Your task to perform on an android device: Go to ESPN.com Image 0: 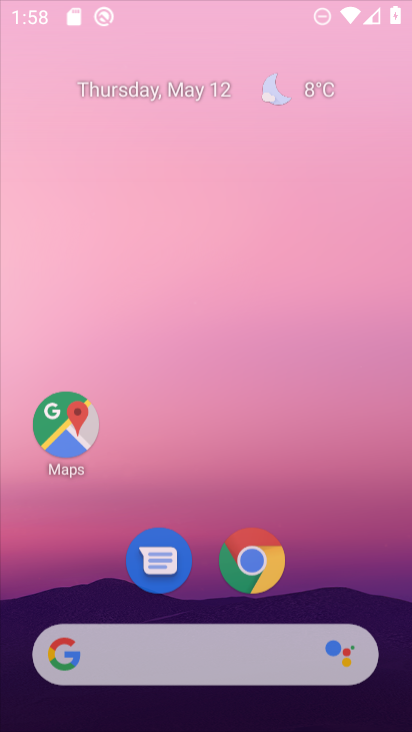
Step 0: click (182, 107)
Your task to perform on an android device: Go to ESPN.com Image 1: 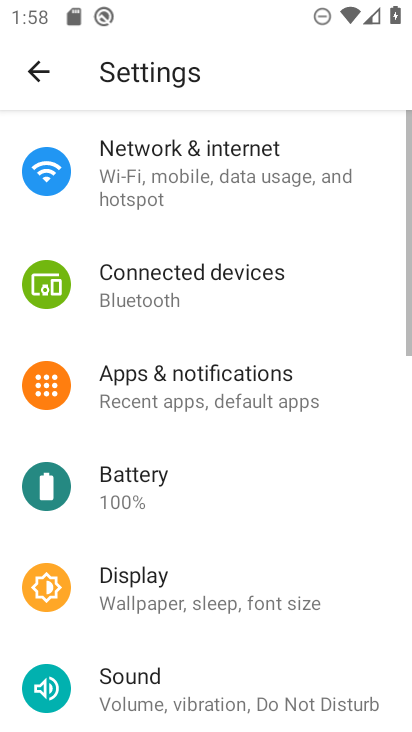
Step 1: click (38, 71)
Your task to perform on an android device: Go to ESPN.com Image 2: 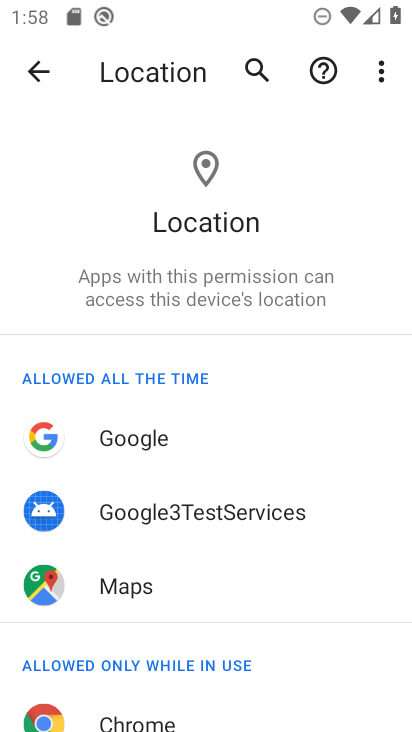
Step 2: press back button
Your task to perform on an android device: Go to ESPN.com Image 3: 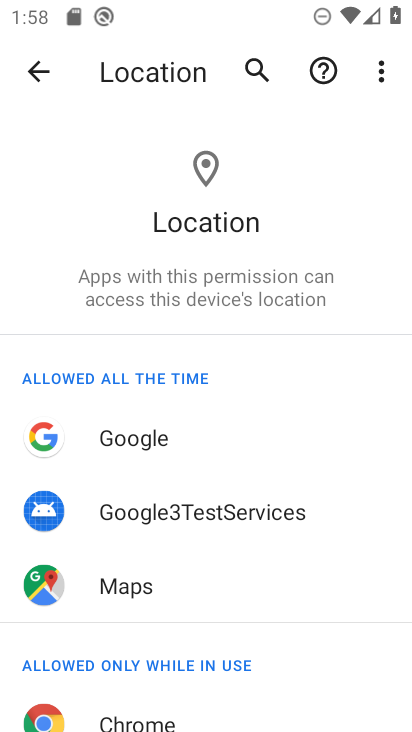
Step 3: press back button
Your task to perform on an android device: Go to ESPN.com Image 4: 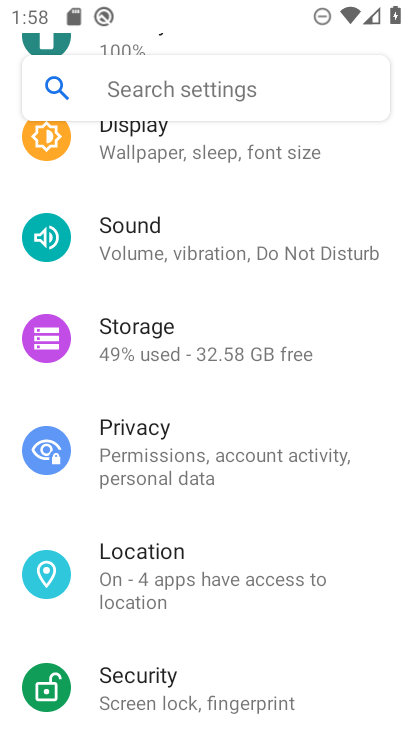
Step 4: press home button
Your task to perform on an android device: Go to ESPN.com Image 5: 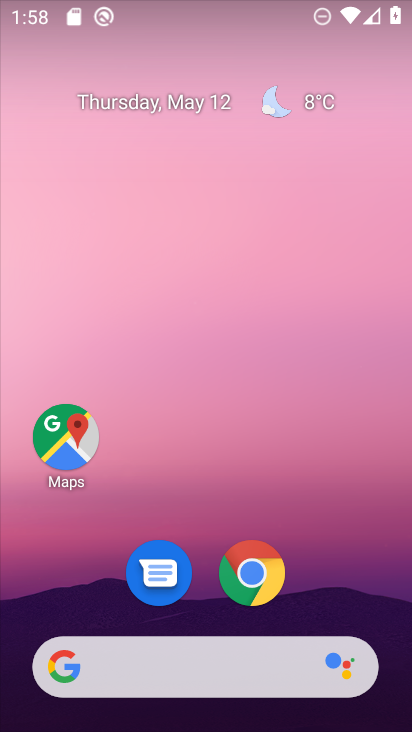
Step 5: drag from (355, 608) to (227, 41)
Your task to perform on an android device: Go to ESPN.com Image 6: 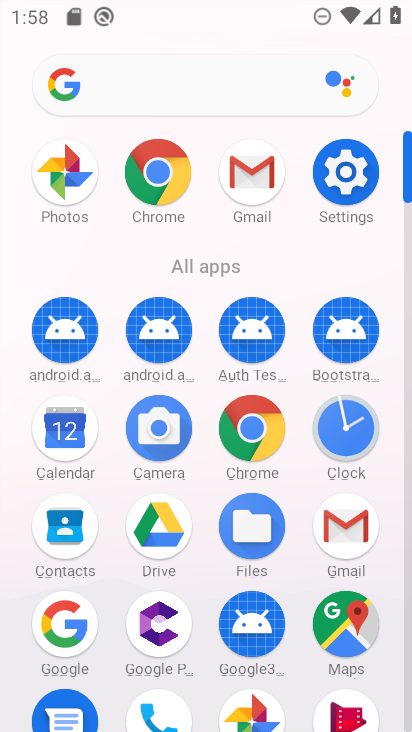
Step 6: drag from (284, 519) to (284, 104)
Your task to perform on an android device: Go to ESPN.com Image 7: 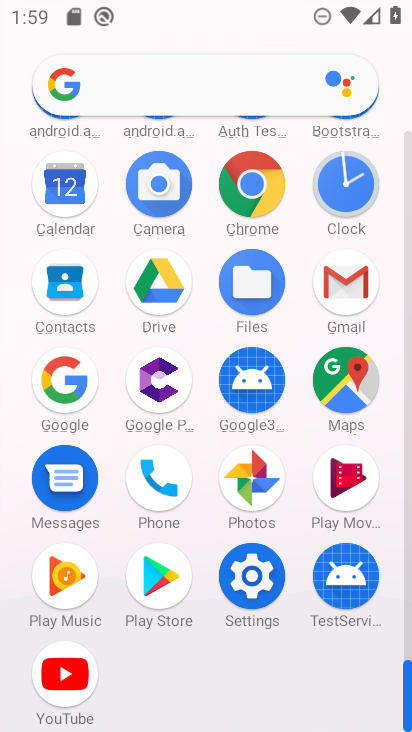
Step 7: drag from (284, 495) to (286, 268)
Your task to perform on an android device: Go to ESPN.com Image 8: 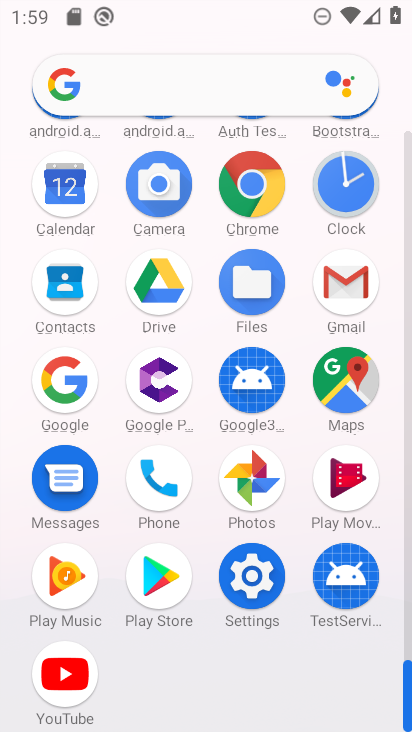
Step 8: click (248, 173)
Your task to perform on an android device: Go to ESPN.com Image 9: 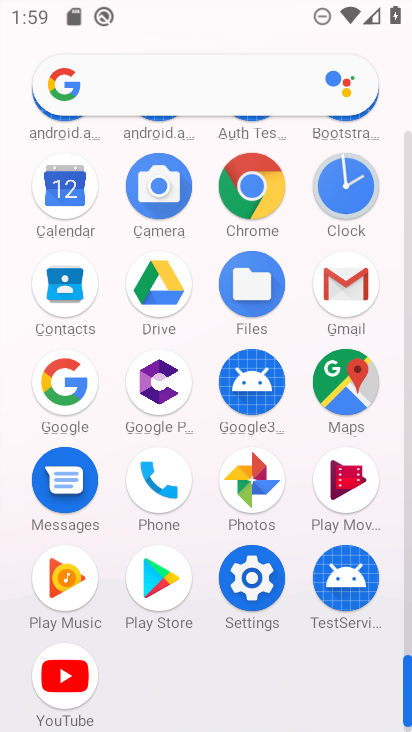
Step 9: click (250, 190)
Your task to perform on an android device: Go to ESPN.com Image 10: 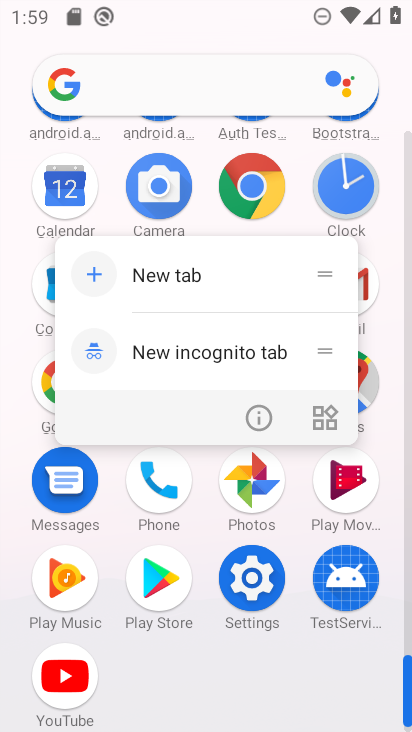
Step 10: click (252, 191)
Your task to perform on an android device: Go to ESPN.com Image 11: 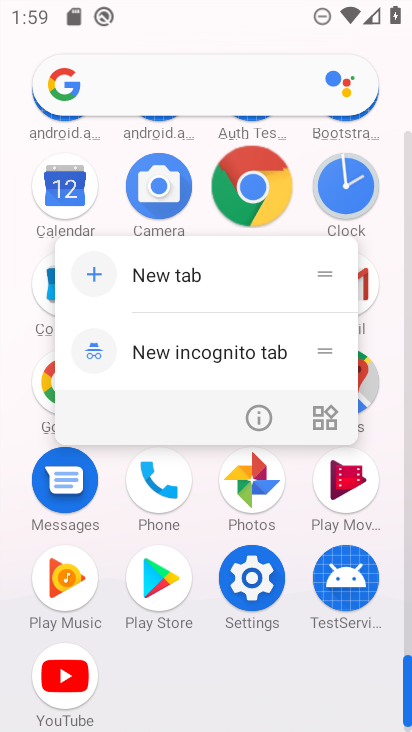
Step 11: click (257, 188)
Your task to perform on an android device: Go to ESPN.com Image 12: 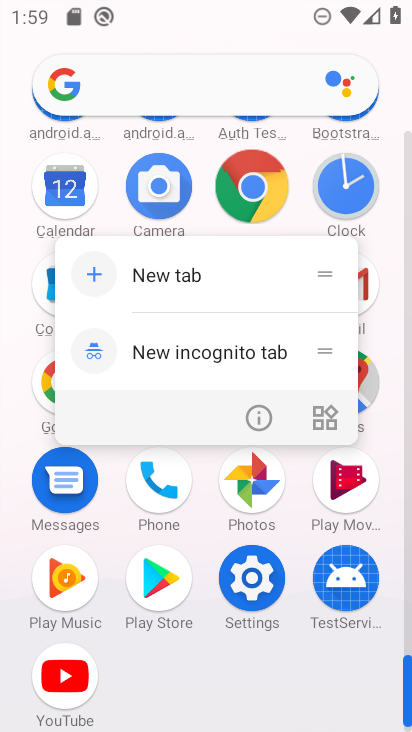
Step 12: click (259, 188)
Your task to perform on an android device: Go to ESPN.com Image 13: 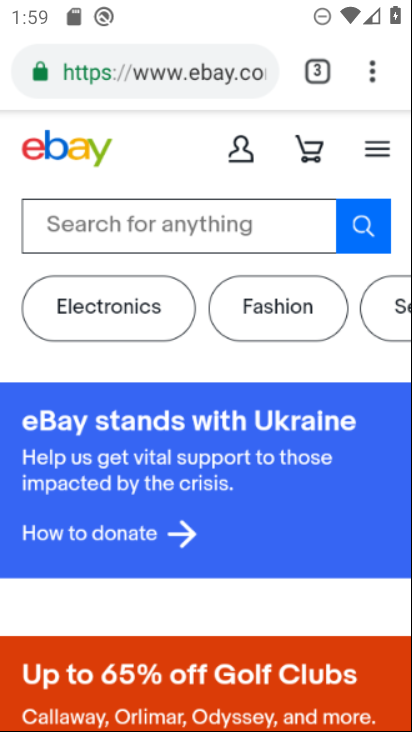
Step 13: click (269, 188)
Your task to perform on an android device: Go to ESPN.com Image 14: 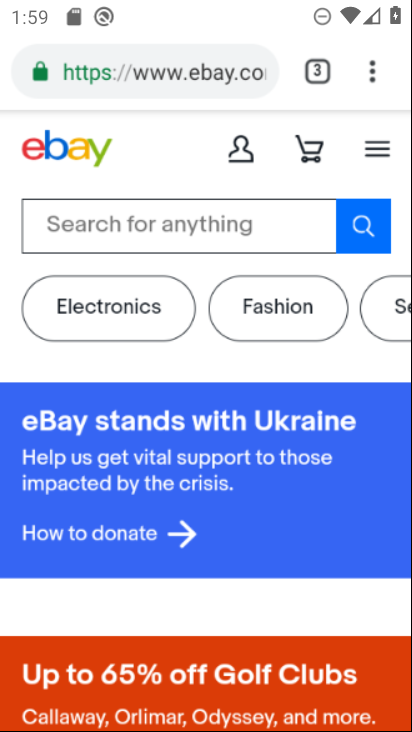
Step 14: click (271, 193)
Your task to perform on an android device: Go to ESPN.com Image 15: 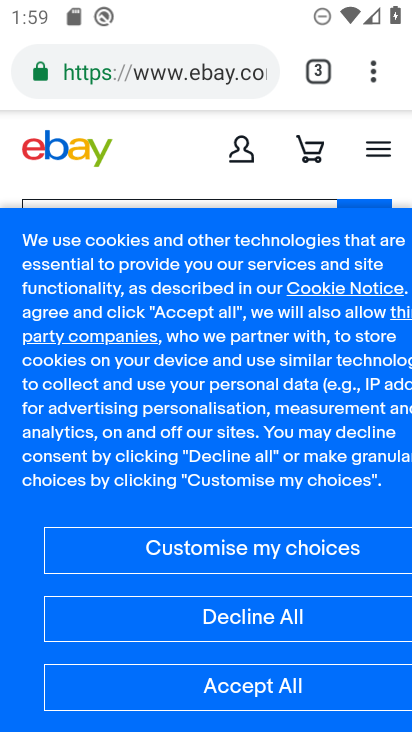
Step 15: drag from (362, 60) to (158, 365)
Your task to perform on an android device: Go to ESPN.com Image 16: 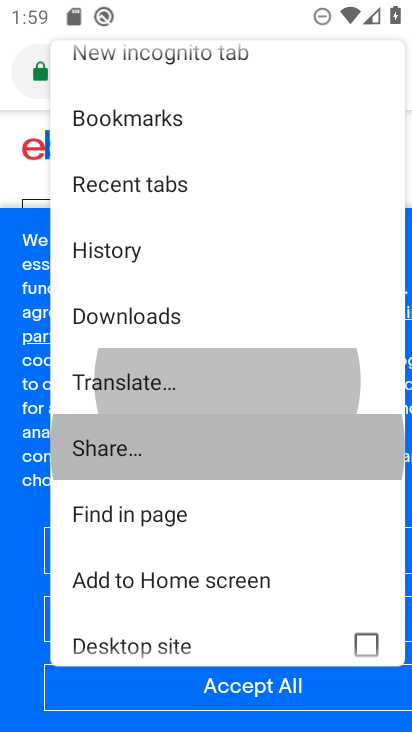
Step 16: drag from (179, 432) to (116, 419)
Your task to perform on an android device: Go to ESPN.com Image 17: 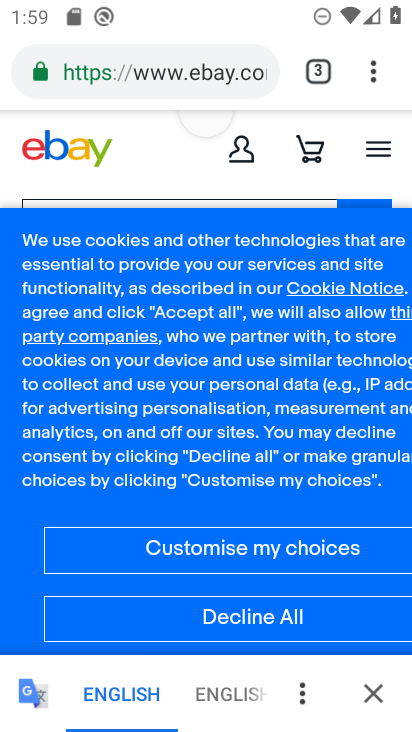
Step 17: drag from (125, 184) to (168, 414)
Your task to perform on an android device: Go to ESPN.com Image 18: 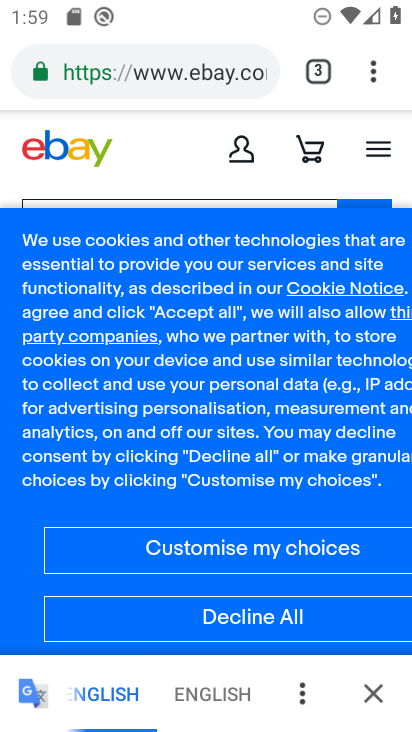
Step 18: click (374, 70)
Your task to perform on an android device: Go to ESPN.com Image 19: 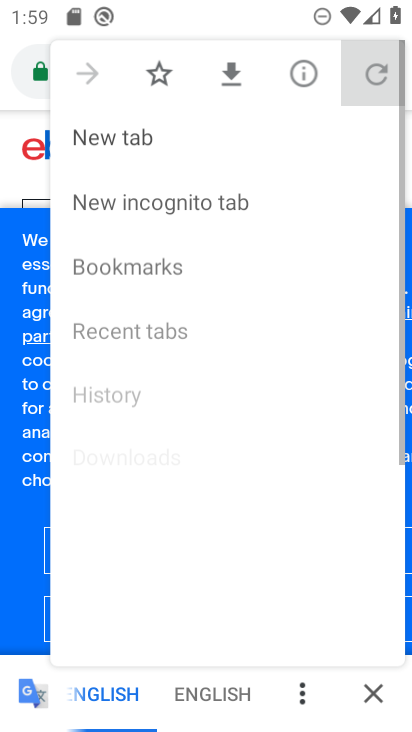
Step 19: click (372, 70)
Your task to perform on an android device: Go to ESPN.com Image 20: 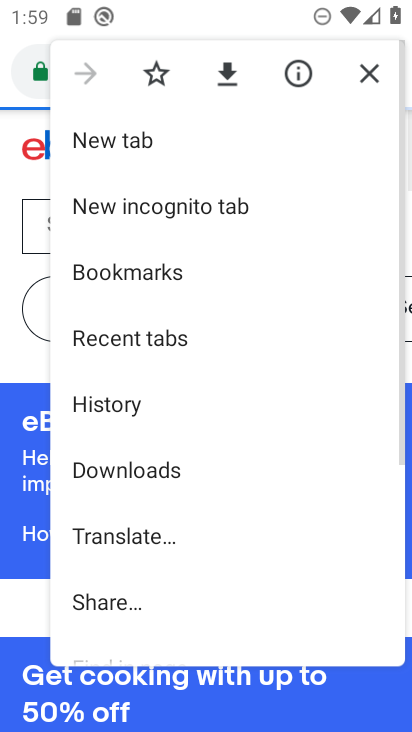
Step 20: click (102, 139)
Your task to perform on an android device: Go to ESPN.com Image 21: 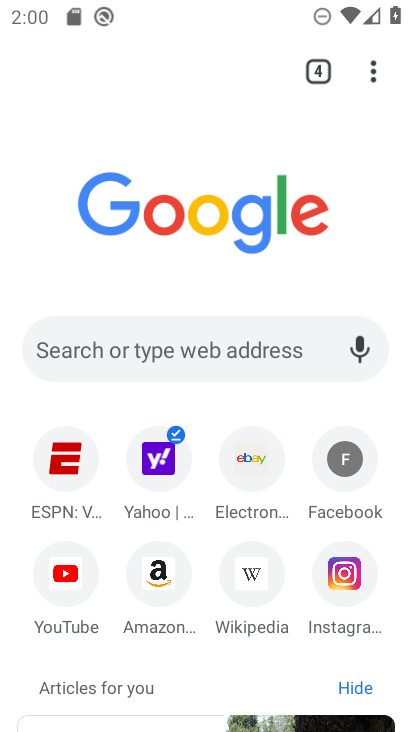
Step 21: click (75, 463)
Your task to perform on an android device: Go to ESPN.com Image 22: 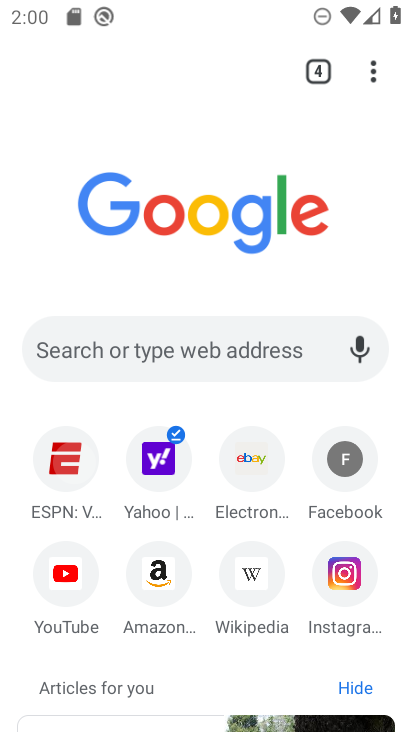
Step 22: drag from (73, 461) to (45, 436)
Your task to perform on an android device: Go to ESPN.com Image 23: 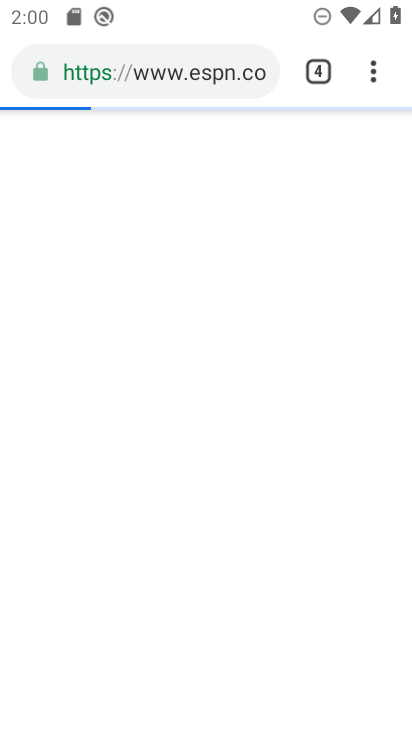
Step 23: click (58, 446)
Your task to perform on an android device: Go to ESPN.com Image 24: 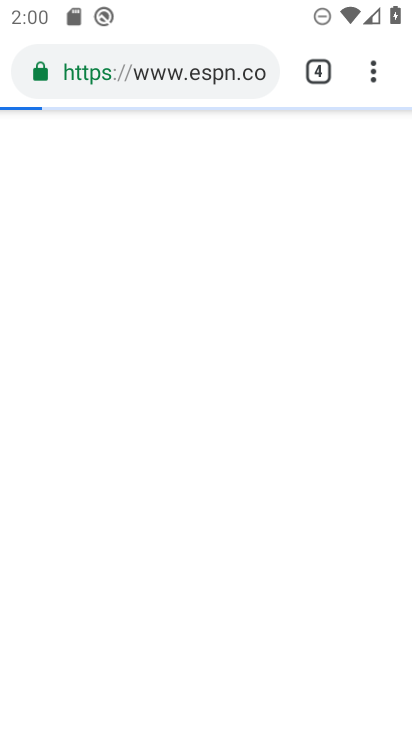
Step 24: click (68, 471)
Your task to perform on an android device: Go to ESPN.com Image 25: 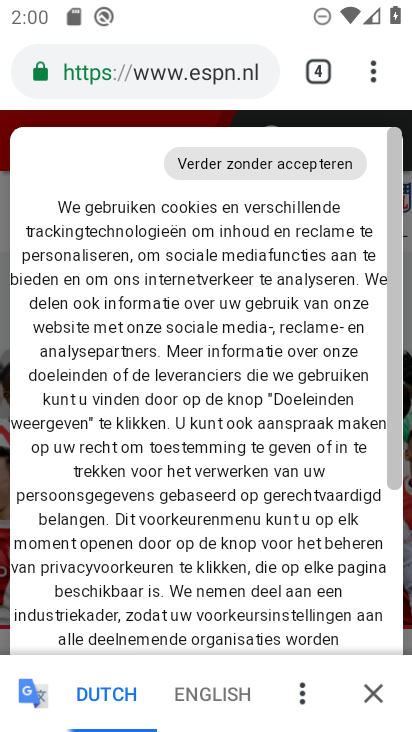
Step 25: task complete